Your task to perform on an android device: turn on priority inbox in the gmail app Image 0: 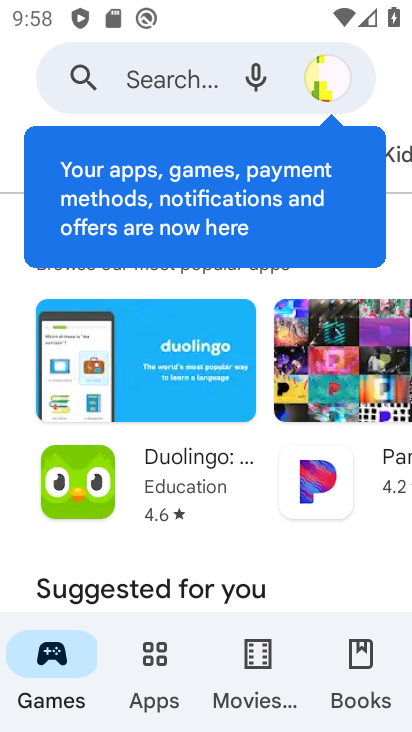
Step 0: press home button
Your task to perform on an android device: turn on priority inbox in the gmail app Image 1: 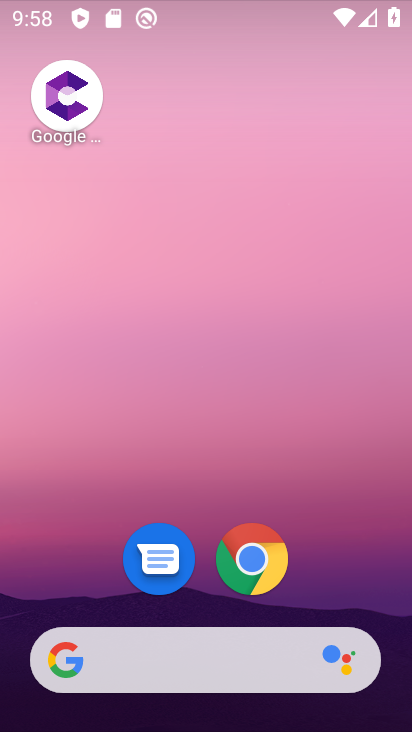
Step 1: drag from (337, 555) to (306, 29)
Your task to perform on an android device: turn on priority inbox in the gmail app Image 2: 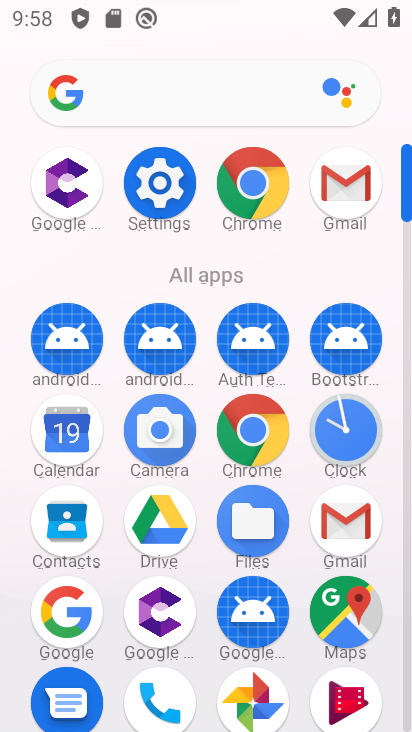
Step 2: click (340, 180)
Your task to perform on an android device: turn on priority inbox in the gmail app Image 3: 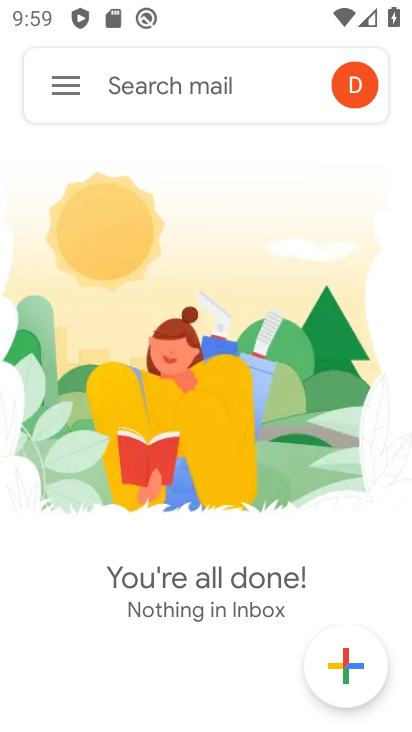
Step 3: click (63, 79)
Your task to perform on an android device: turn on priority inbox in the gmail app Image 4: 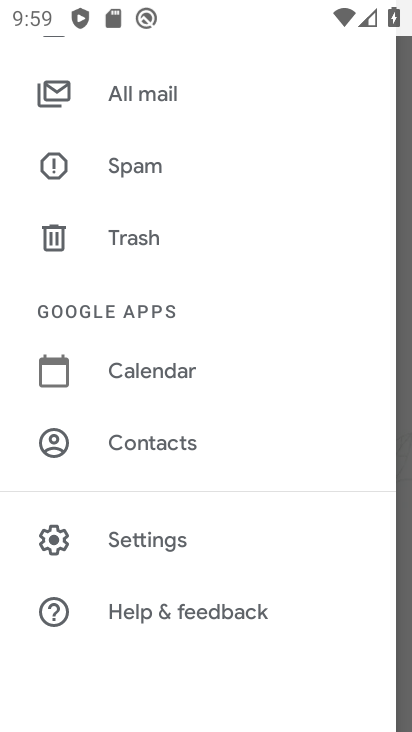
Step 4: click (96, 527)
Your task to perform on an android device: turn on priority inbox in the gmail app Image 5: 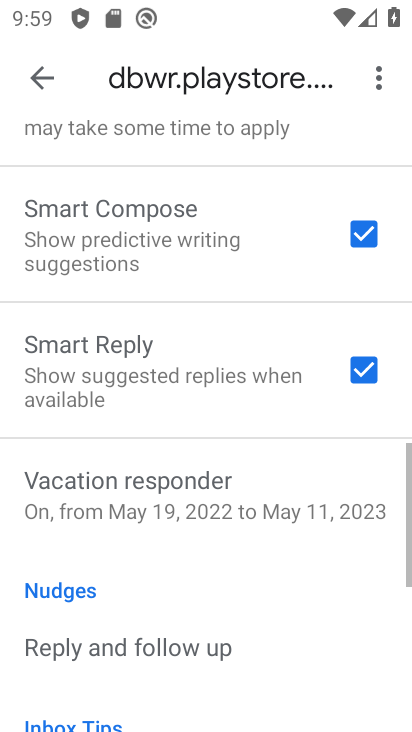
Step 5: drag from (152, 306) to (174, 617)
Your task to perform on an android device: turn on priority inbox in the gmail app Image 6: 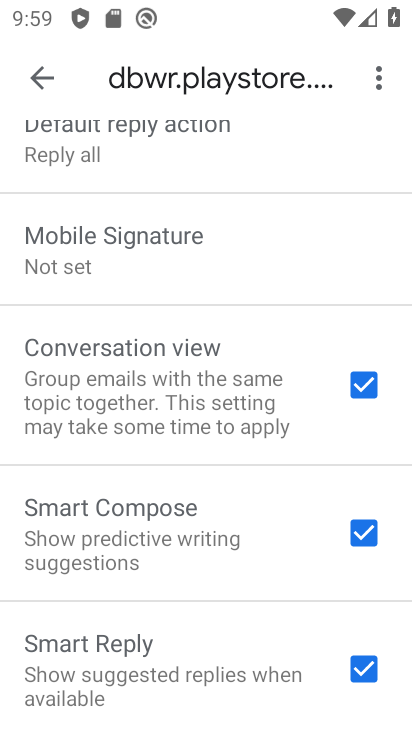
Step 6: drag from (208, 121) to (217, 551)
Your task to perform on an android device: turn on priority inbox in the gmail app Image 7: 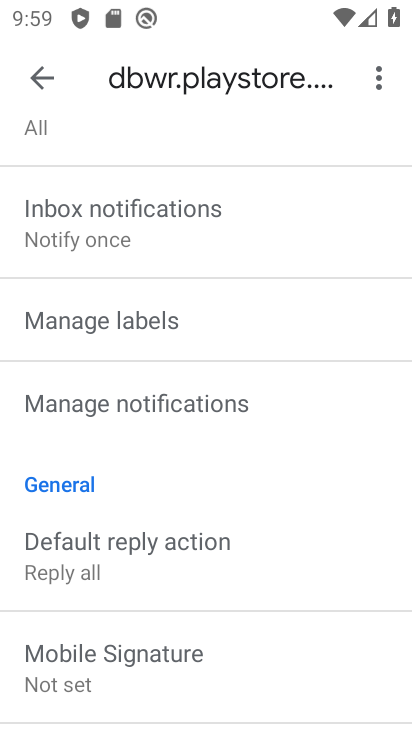
Step 7: drag from (286, 175) to (341, 570)
Your task to perform on an android device: turn on priority inbox in the gmail app Image 8: 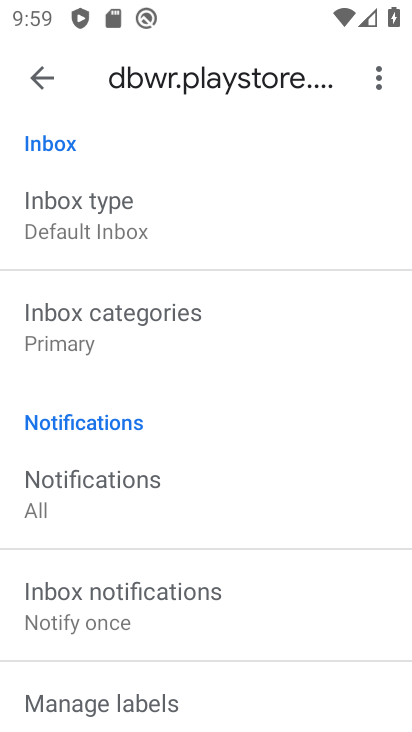
Step 8: drag from (136, 175) to (186, 573)
Your task to perform on an android device: turn on priority inbox in the gmail app Image 9: 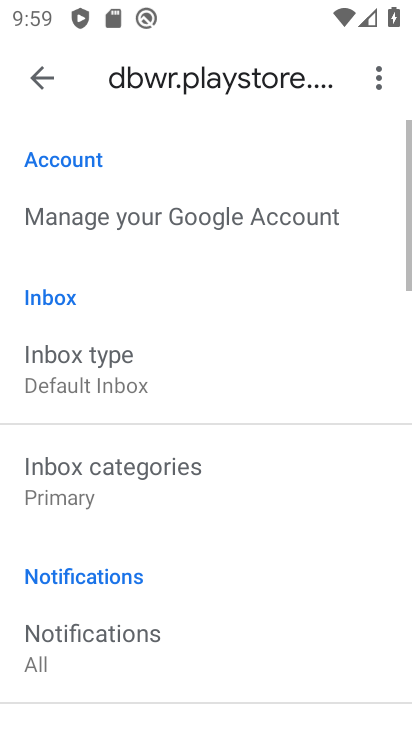
Step 9: click (66, 378)
Your task to perform on an android device: turn on priority inbox in the gmail app Image 10: 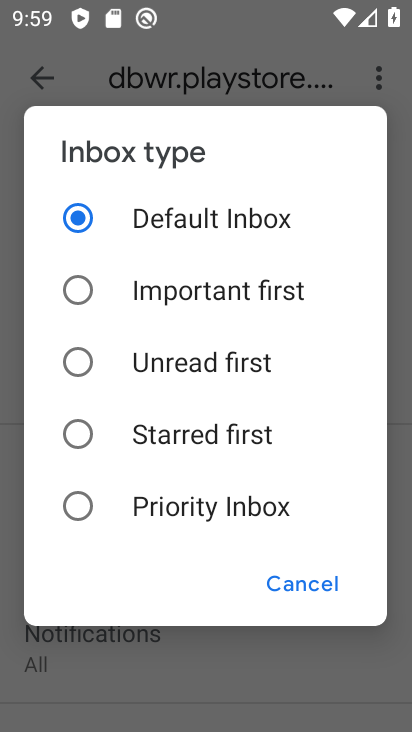
Step 10: click (81, 507)
Your task to perform on an android device: turn on priority inbox in the gmail app Image 11: 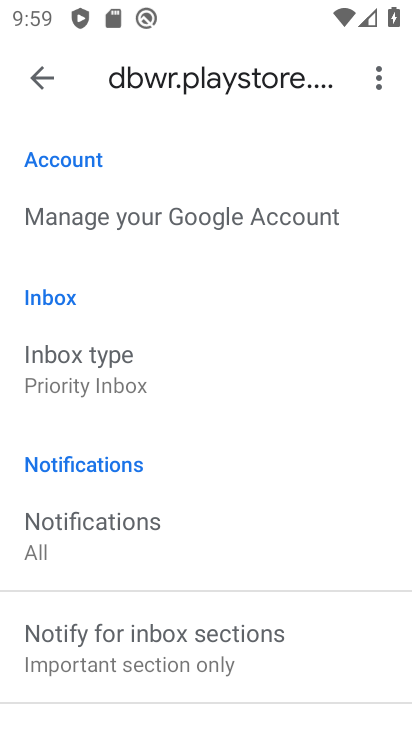
Step 11: task complete